Your task to perform on an android device: Open the phone app and click the voicemail tab. Image 0: 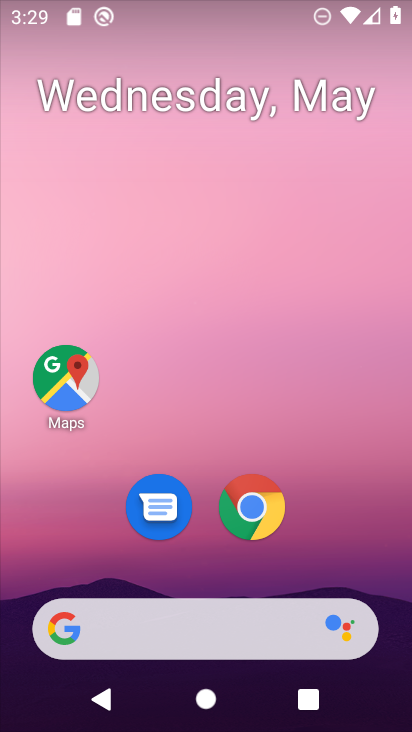
Step 0: drag from (204, 562) to (244, 194)
Your task to perform on an android device: Open the phone app and click the voicemail tab. Image 1: 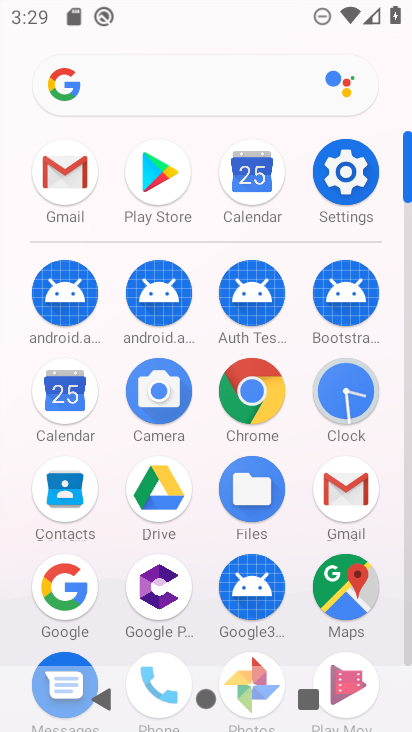
Step 1: drag from (162, 598) to (190, 440)
Your task to perform on an android device: Open the phone app and click the voicemail tab. Image 2: 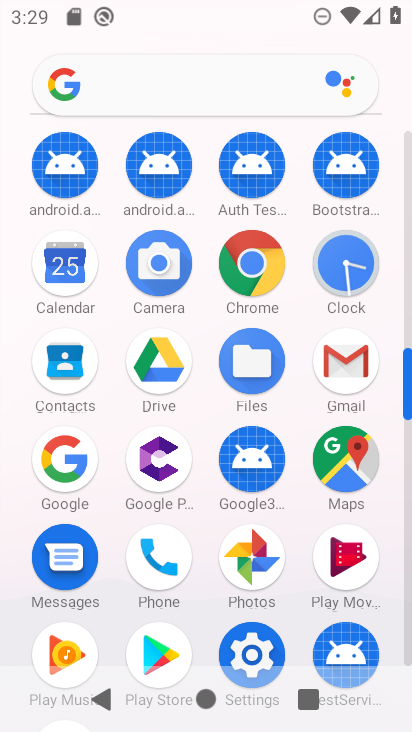
Step 2: click (158, 559)
Your task to perform on an android device: Open the phone app and click the voicemail tab. Image 3: 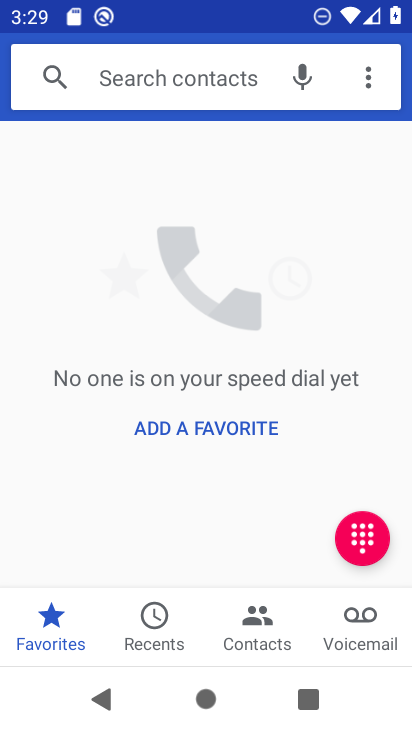
Step 3: click (354, 630)
Your task to perform on an android device: Open the phone app and click the voicemail tab. Image 4: 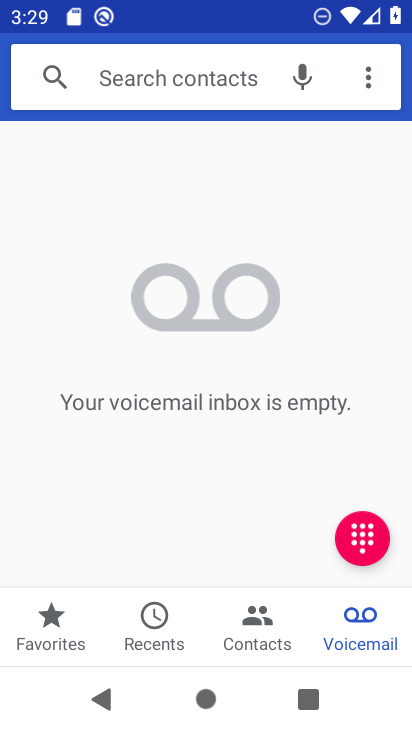
Step 4: task complete